Your task to perform on an android device: Go to Google Image 0: 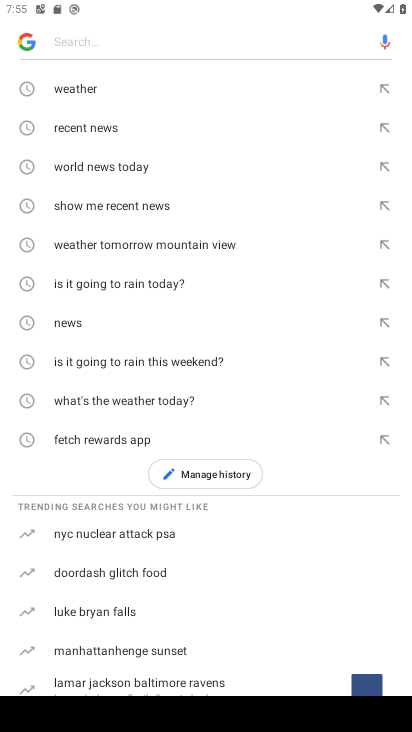
Step 0: press home button
Your task to perform on an android device: Go to Google Image 1: 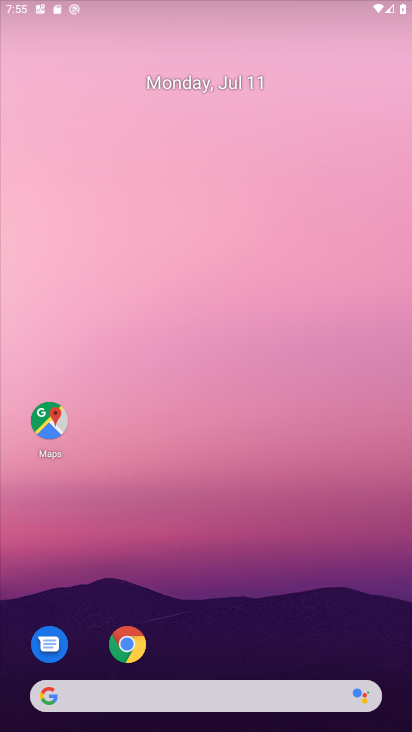
Step 1: drag from (212, 619) to (214, 284)
Your task to perform on an android device: Go to Google Image 2: 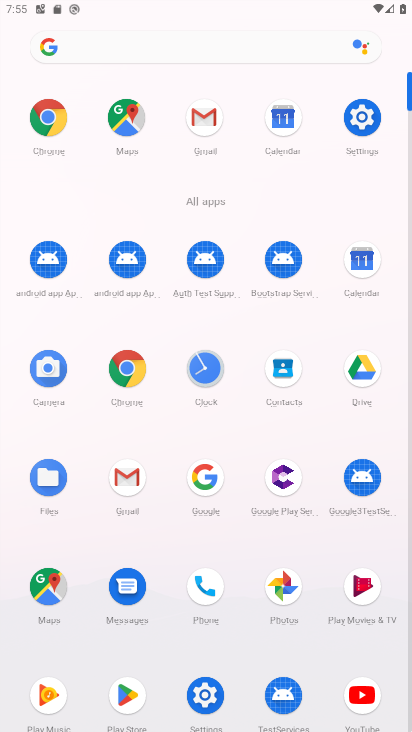
Step 2: click (199, 466)
Your task to perform on an android device: Go to Google Image 3: 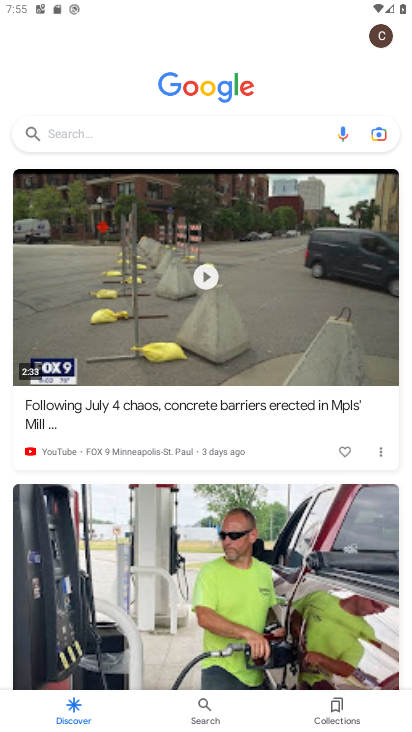
Step 3: task complete